Your task to perform on an android device: Go to Android settings Image 0: 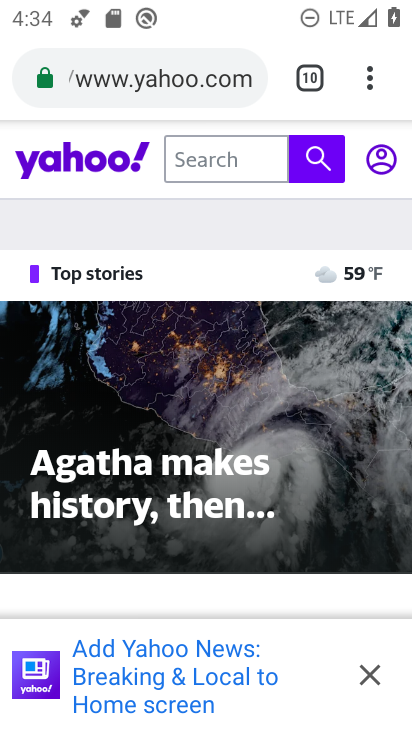
Step 0: press home button
Your task to perform on an android device: Go to Android settings Image 1: 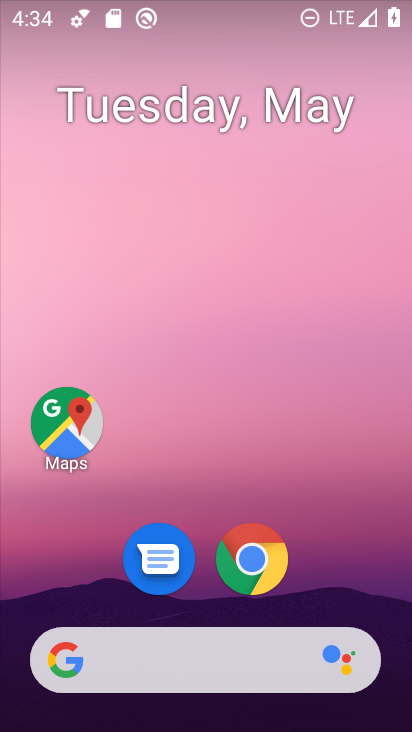
Step 1: drag from (211, 724) to (258, 95)
Your task to perform on an android device: Go to Android settings Image 2: 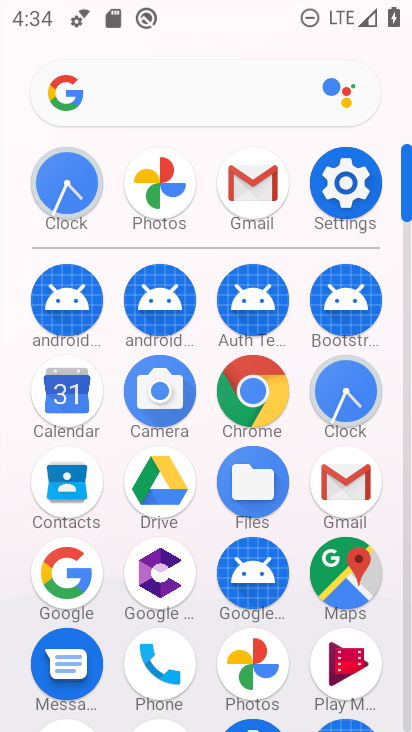
Step 2: click (347, 196)
Your task to perform on an android device: Go to Android settings Image 3: 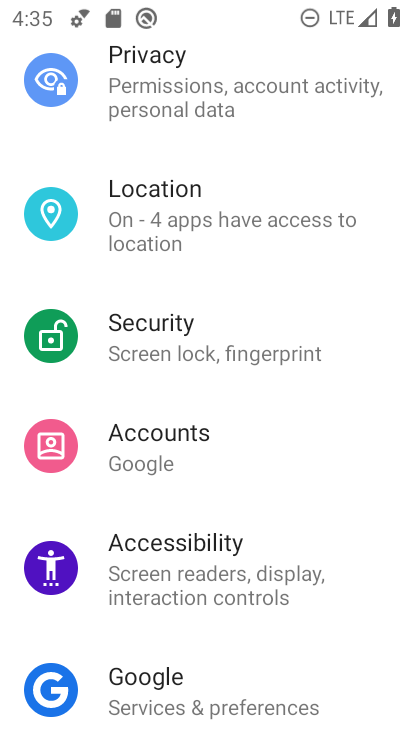
Step 3: task complete